Your task to perform on an android device: toggle notifications settings in the gmail app Image 0: 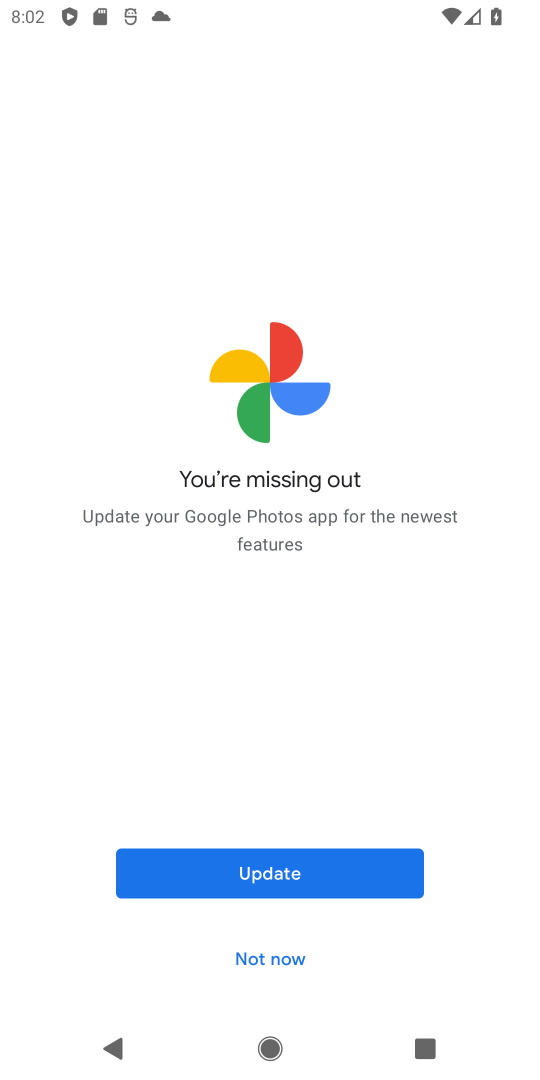
Step 0: press home button
Your task to perform on an android device: toggle notifications settings in the gmail app Image 1: 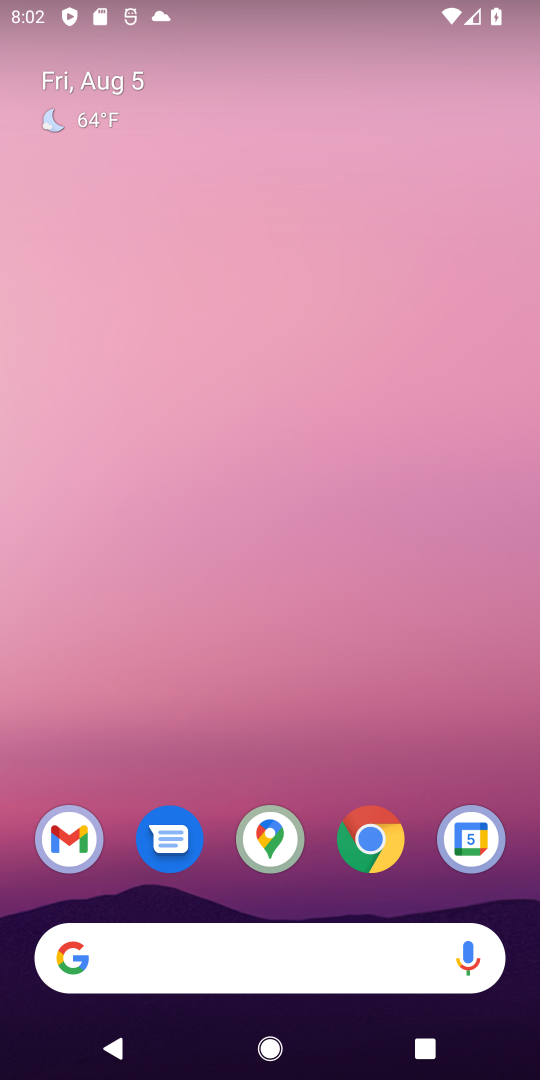
Step 1: drag from (297, 903) to (218, 167)
Your task to perform on an android device: toggle notifications settings in the gmail app Image 2: 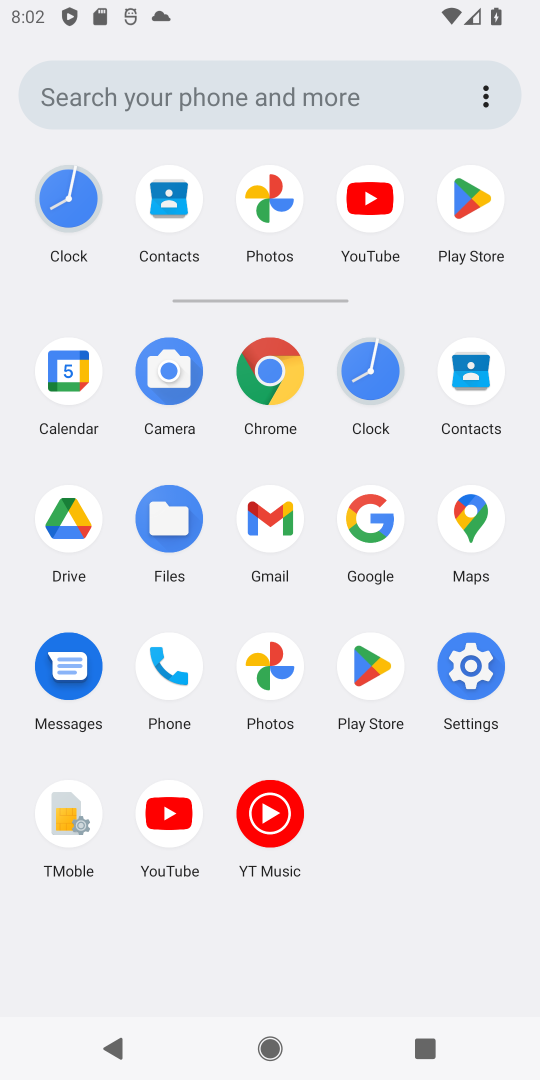
Step 2: click (272, 532)
Your task to perform on an android device: toggle notifications settings in the gmail app Image 3: 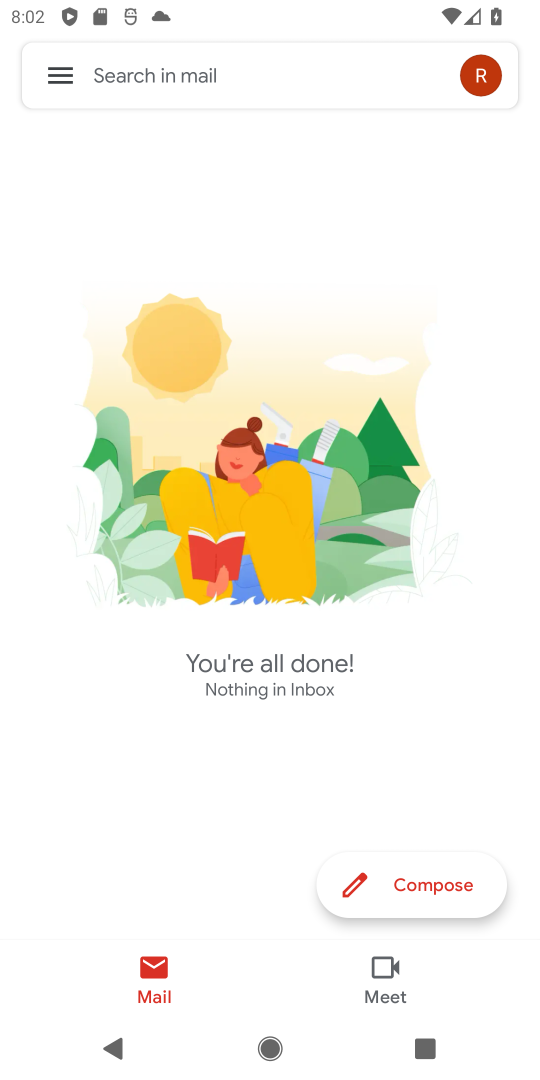
Step 3: click (64, 83)
Your task to perform on an android device: toggle notifications settings in the gmail app Image 4: 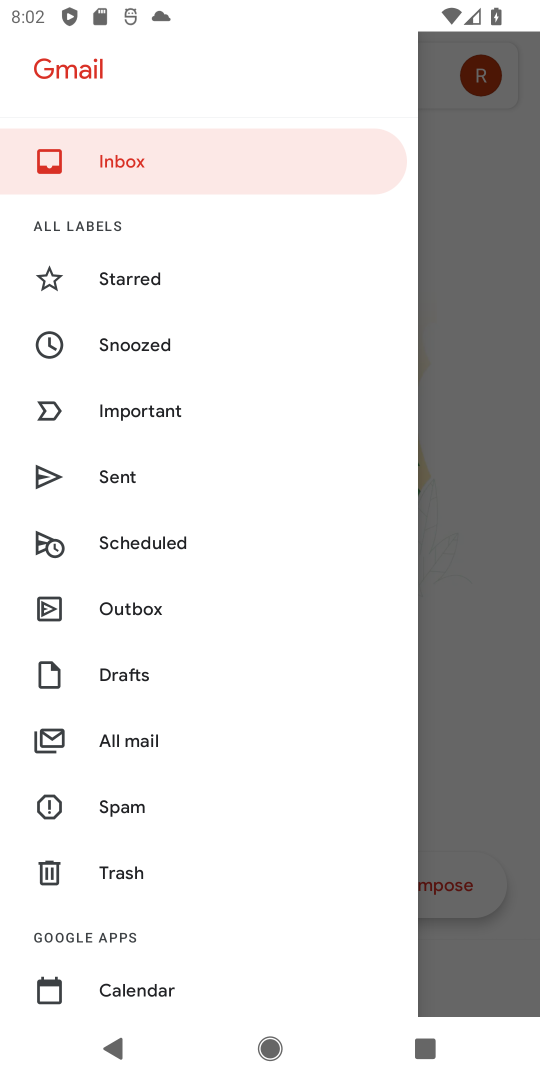
Step 4: drag from (147, 949) to (147, 593)
Your task to perform on an android device: toggle notifications settings in the gmail app Image 5: 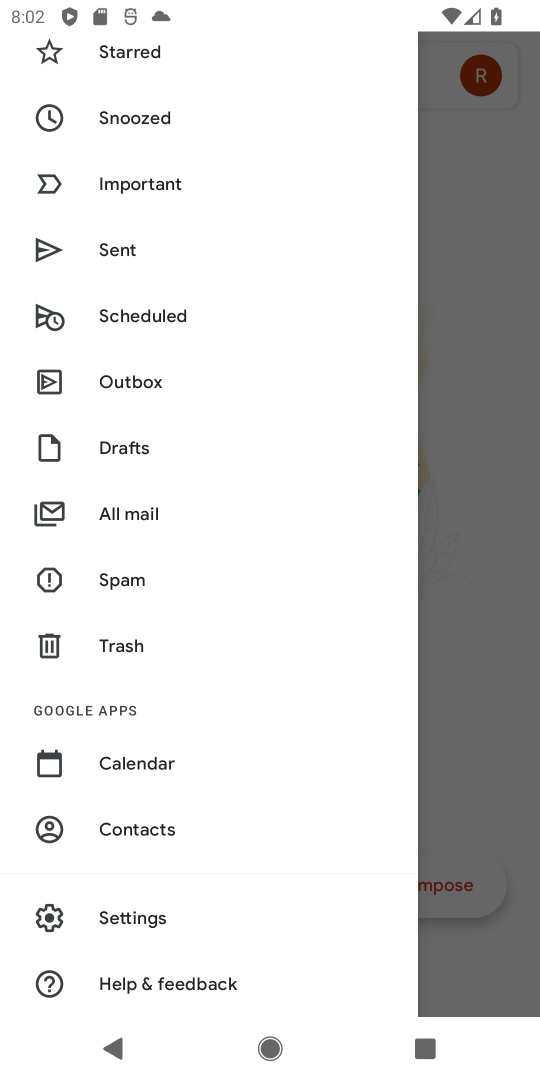
Step 5: click (127, 912)
Your task to perform on an android device: toggle notifications settings in the gmail app Image 6: 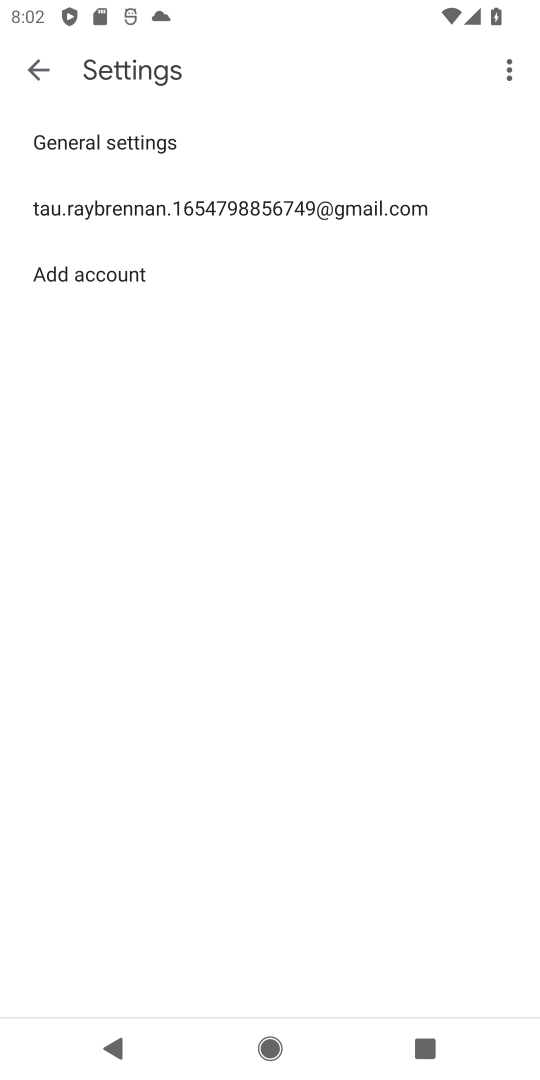
Step 6: click (100, 204)
Your task to perform on an android device: toggle notifications settings in the gmail app Image 7: 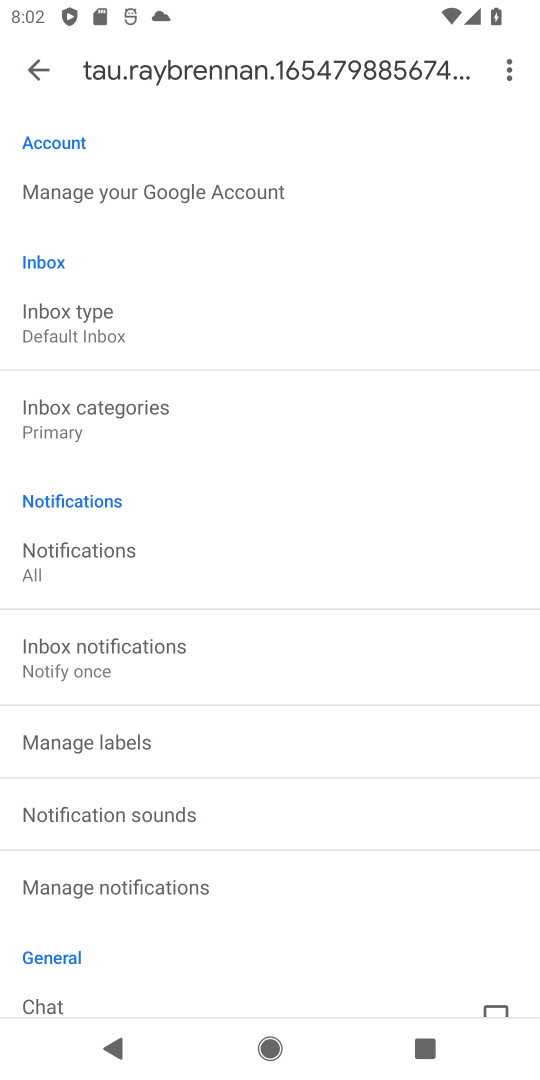
Step 7: click (75, 549)
Your task to perform on an android device: toggle notifications settings in the gmail app Image 8: 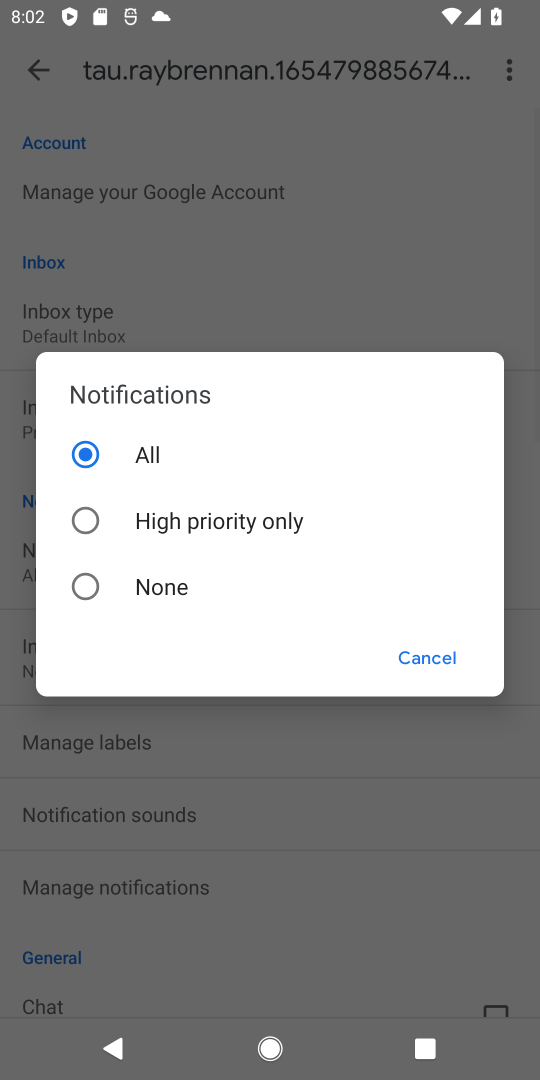
Step 8: click (95, 516)
Your task to perform on an android device: toggle notifications settings in the gmail app Image 9: 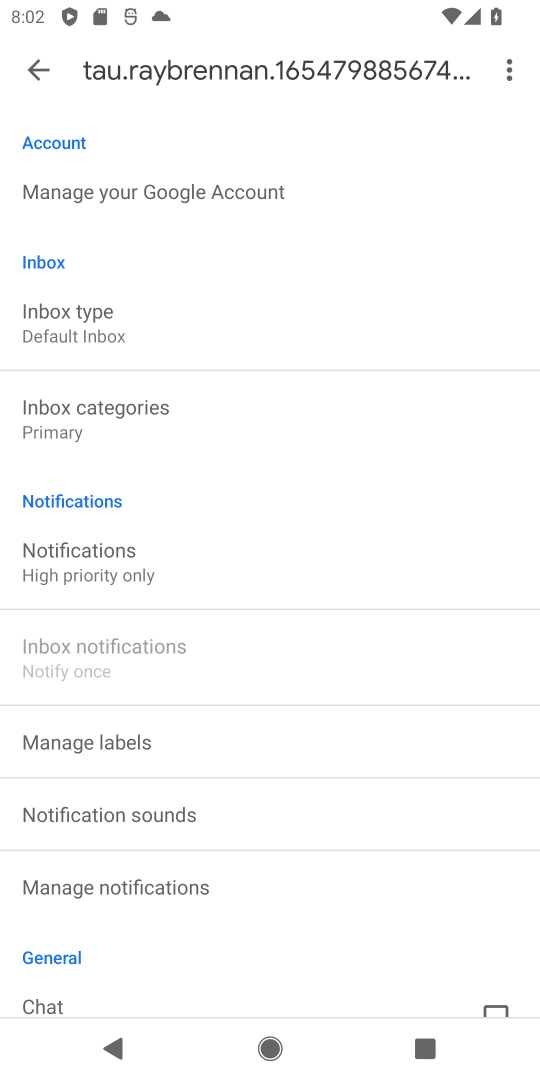
Step 9: task complete